Your task to perform on an android device: Go to network settings Image 0: 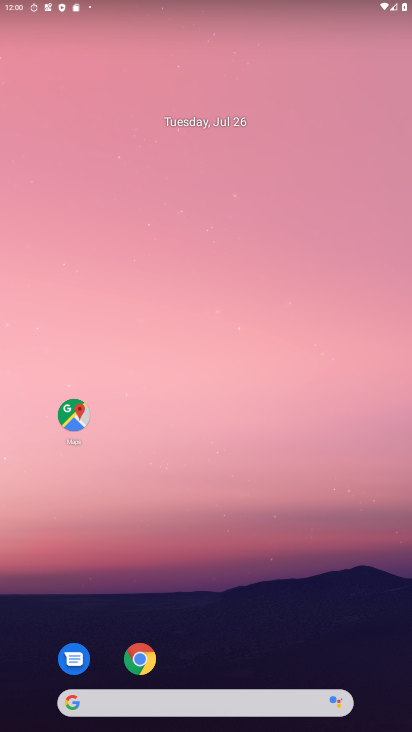
Step 0: drag from (201, 554) to (199, 43)
Your task to perform on an android device: Go to network settings Image 1: 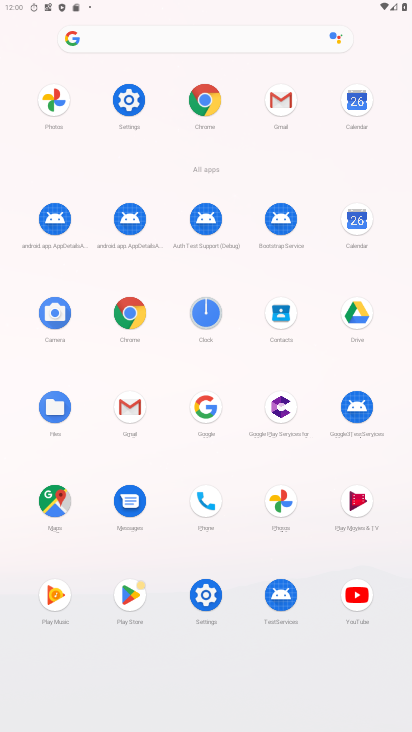
Step 1: click (137, 102)
Your task to perform on an android device: Go to network settings Image 2: 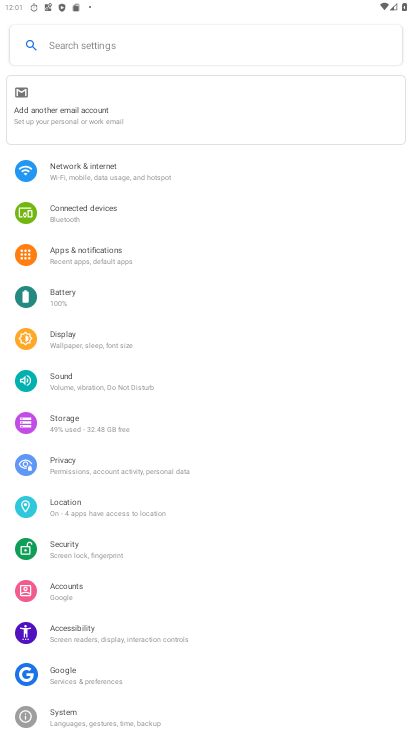
Step 2: click (104, 164)
Your task to perform on an android device: Go to network settings Image 3: 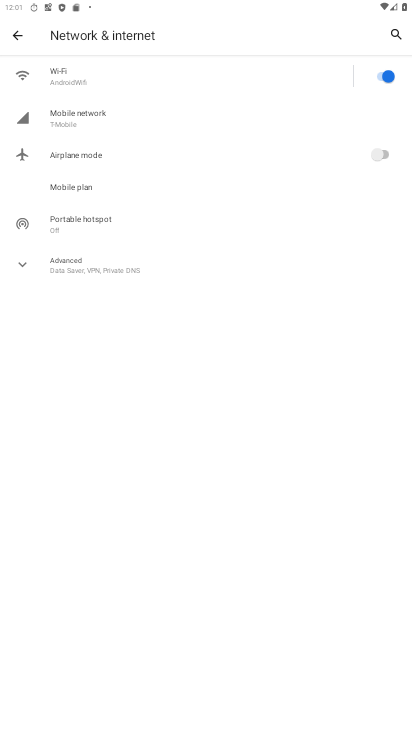
Step 3: task complete